Your task to perform on an android device: Open the Play Movies app and select the watchlist tab. Image 0: 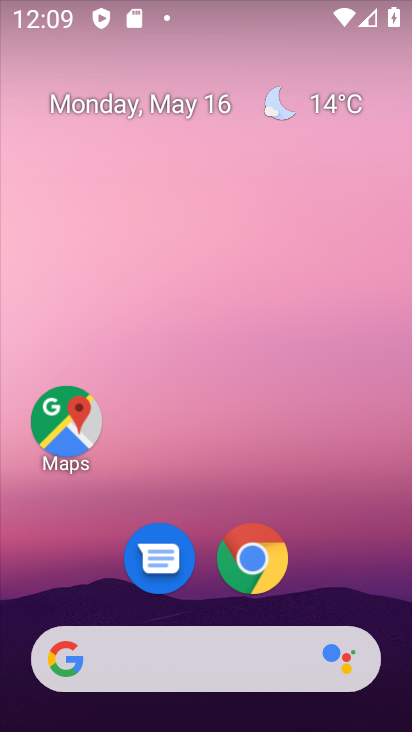
Step 0: drag from (357, 570) to (359, 80)
Your task to perform on an android device: Open the Play Movies app and select the watchlist tab. Image 1: 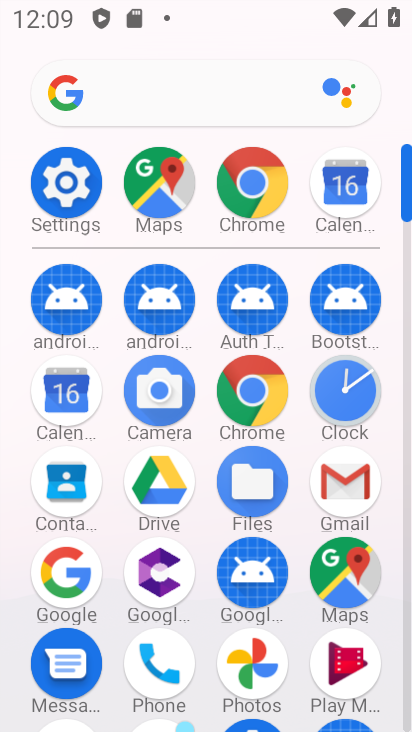
Step 1: click (353, 666)
Your task to perform on an android device: Open the Play Movies app and select the watchlist tab. Image 2: 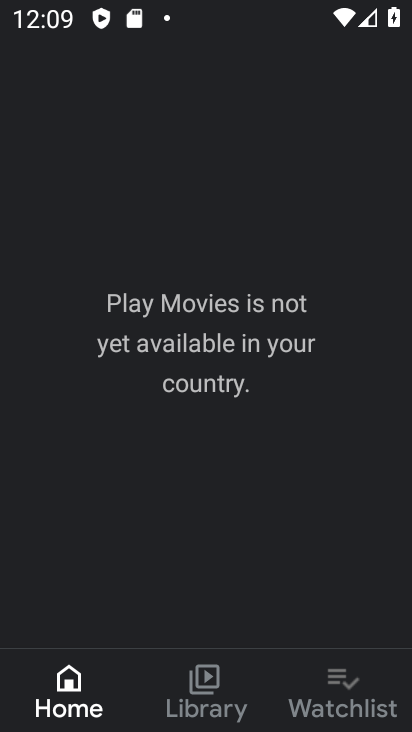
Step 2: click (353, 700)
Your task to perform on an android device: Open the Play Movies app and select the watchlist tab. Image 3: 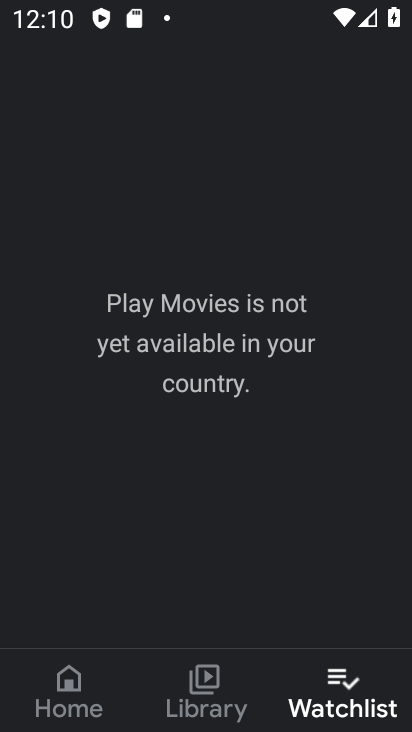
Step 3: task complete